Your task to perform on an android device: Do I have any events tomorrow? Image 0: 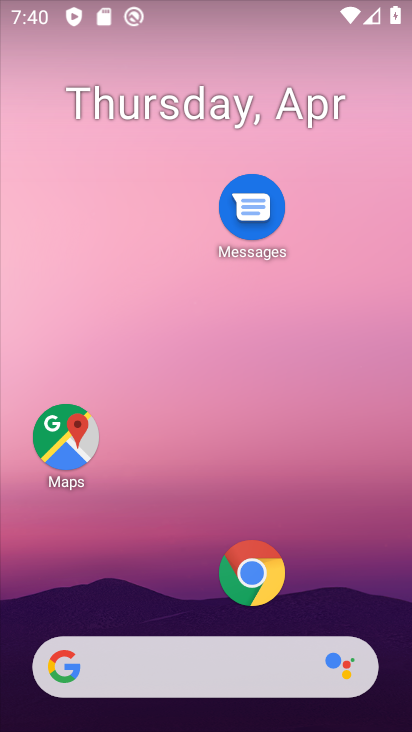
Step 0: drag from (3, 334) to (362, 336)
Your task to perform on an android device: Do I have any events tomorrow? Image 1: 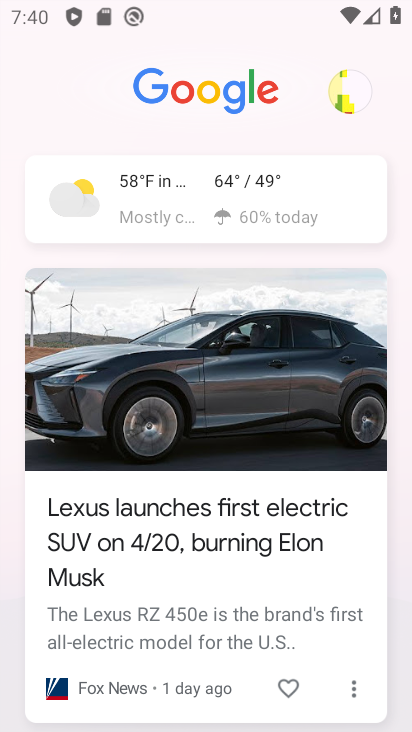
Step 1: task complete